Your task to perform on an android device: Open Wikipedia Image 0: 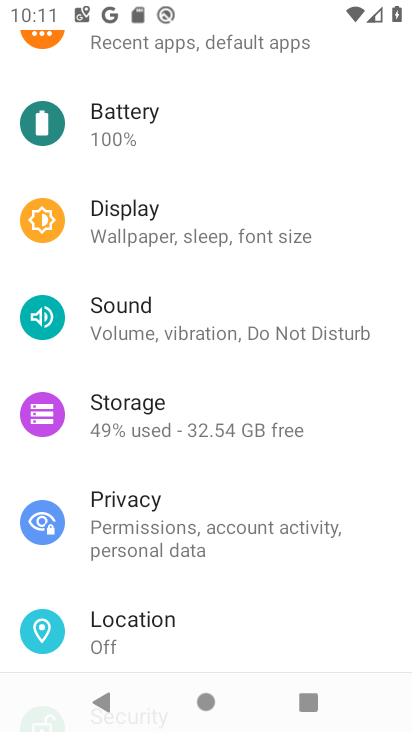
Step 0: press home button
Your task to perform on an android device: Open Wikipedia Image 1: 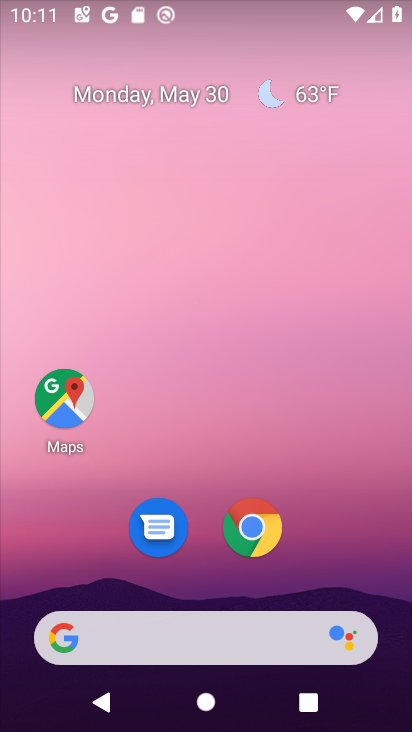
Step 1: drag from (308, 540) to (328, 171)
Your task to perform on an android device: Open Wikipedia Image 2: 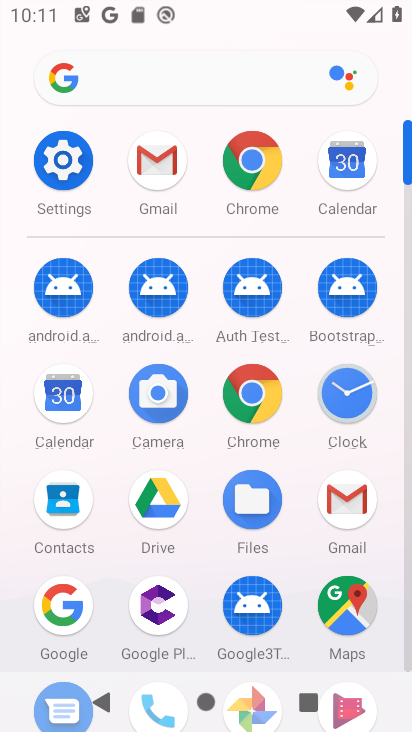
Step 2: click (230, 153)
Your task to perform on an android device: Open Wikipedia Image 3: 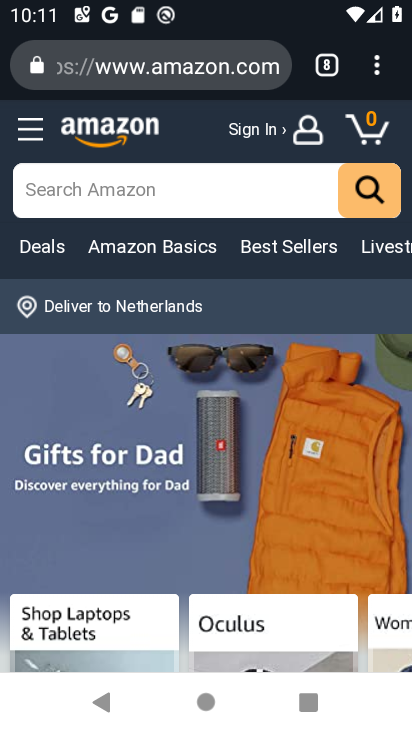
Step 3: click (371, 61)
Your task to perform on an android device: Open Wikipedia Image 4: 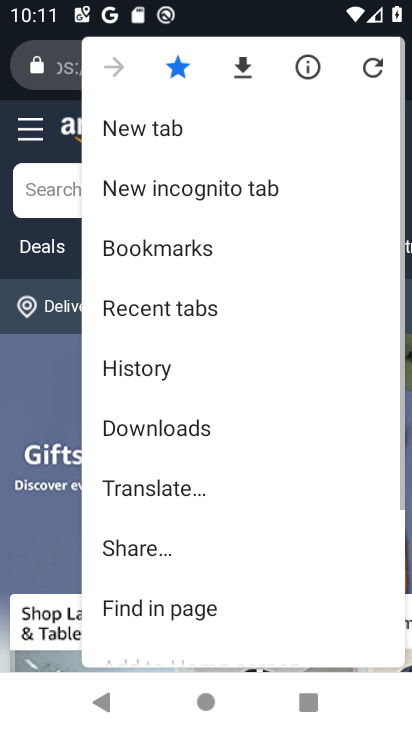
Step 4: click (138, 130)
Your task to perform on an android device: Open Wikipedia Image 5: 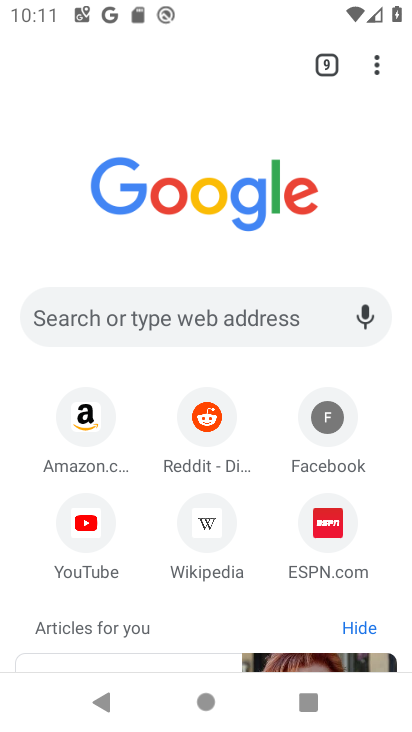
Step 5: click (209, 530)
Your task to perform on an android device: Open Wikipedia Image 6: 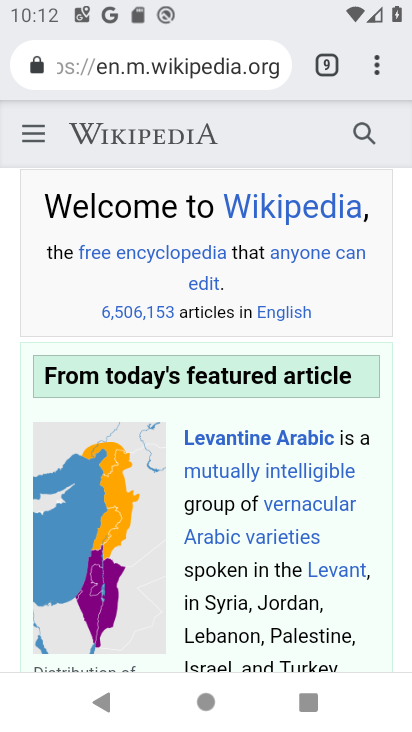
Step 6: task complete